Your task to perform on an android device: Search for "macbook pro 13 inch" on bestbuy, select the first entry, add it to the cart, then select checkout. Image 0: 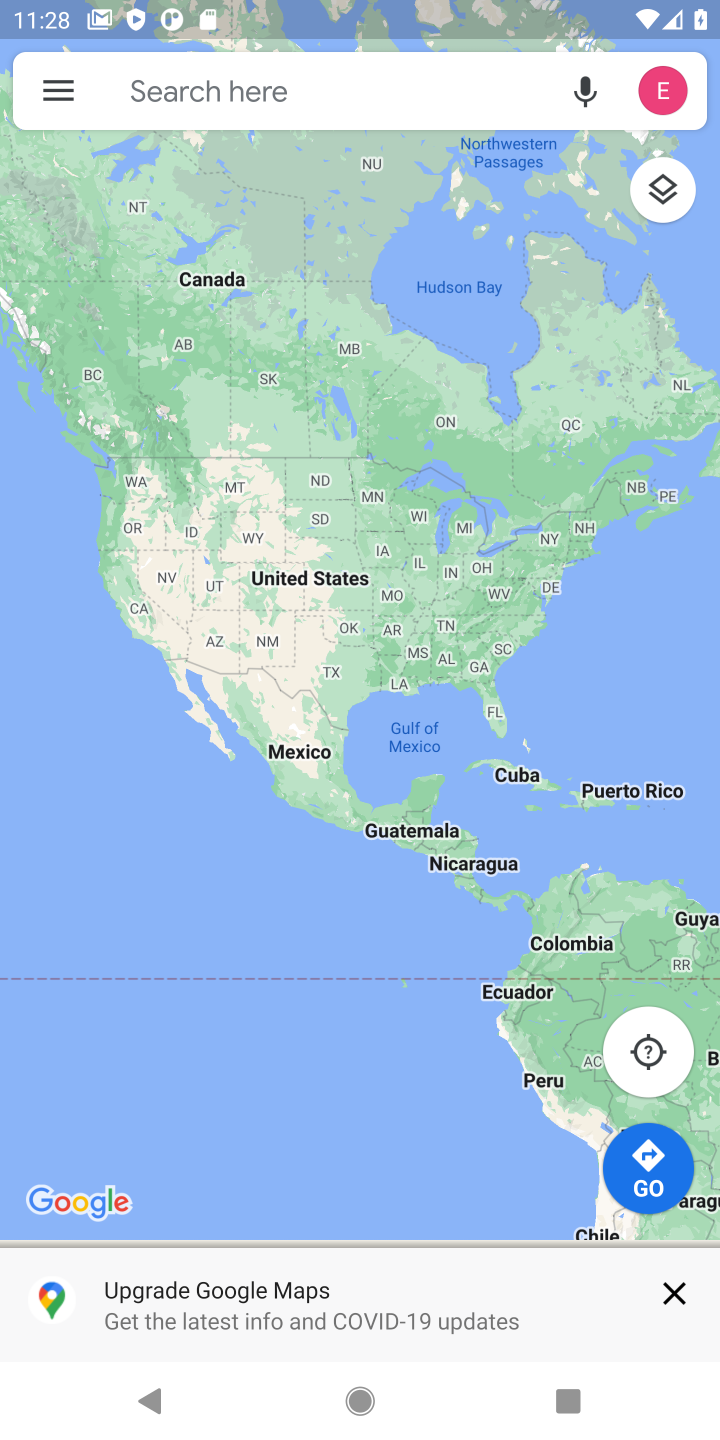
Step 0: press home button
Your task to perform on an android device: Search for "macbook pro 13 inch" on bestbuy, select the first entry, add it to the cart, then select checkout. Image 1: 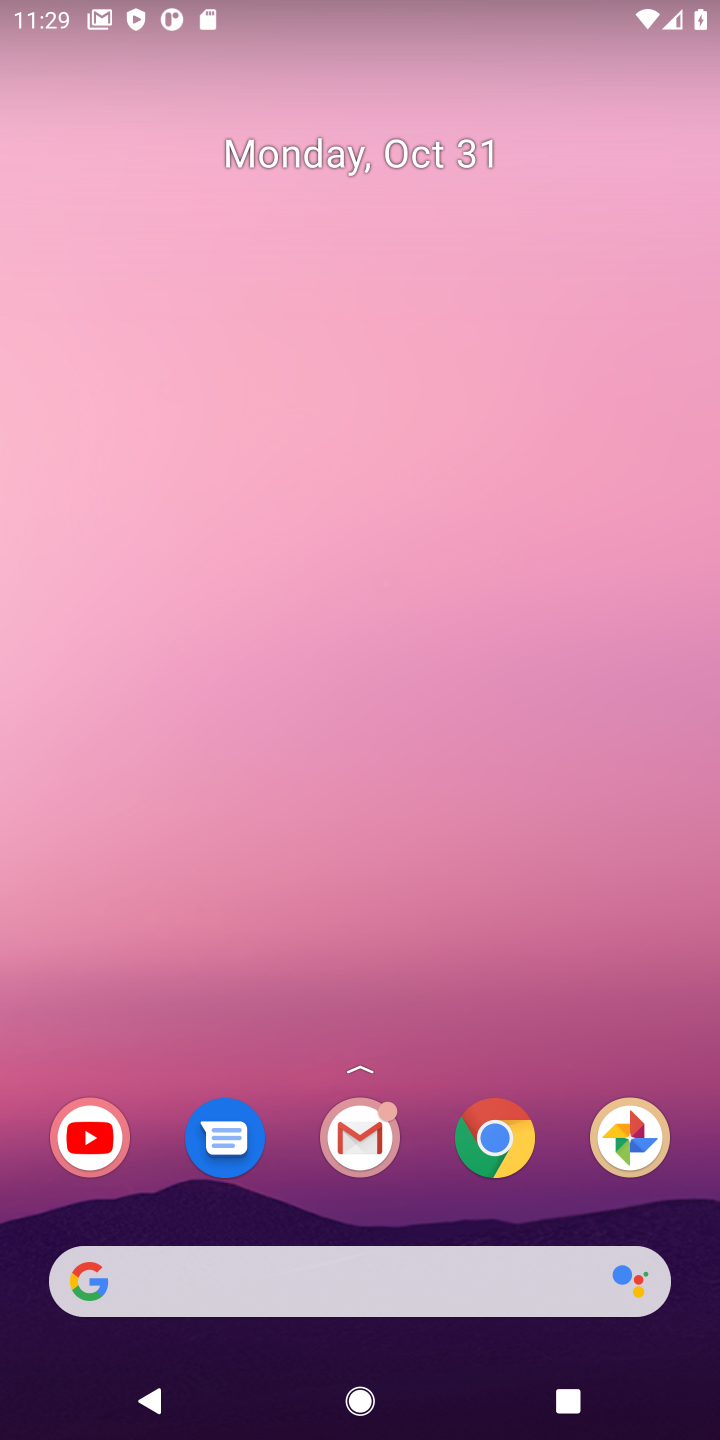
Step 1: click (494, 1164)
Your task to perform on an android device: Search for "macbook pro 13 inch" on bestbuy, select the first entry, add it to the cart, then select checkout. Image 2: 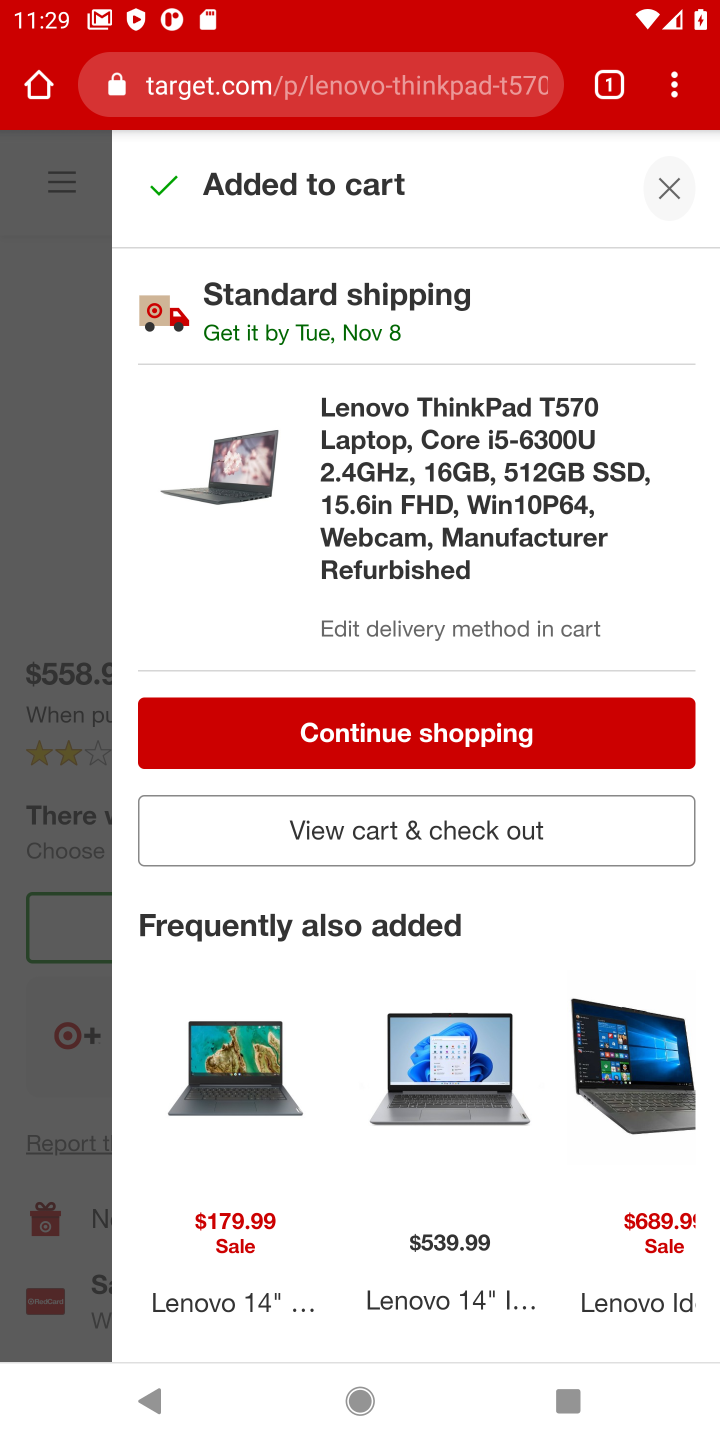
Step 2: click (498, 1144)
Your task to perform on an android device: Search for "macbook pro 13 inch" on bestbuy, select the first entry, add it to the cart, then select checkout. Image 3: 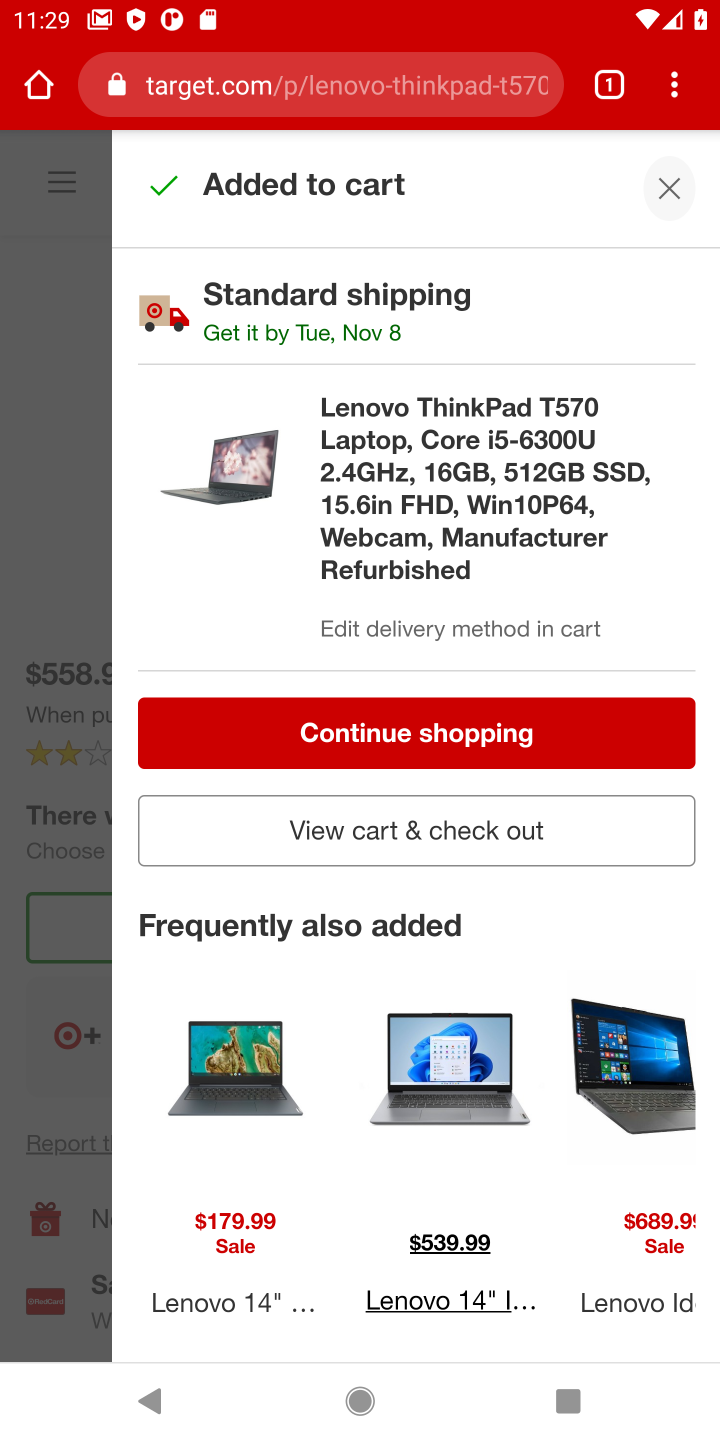
Step 3: click (498, 1144)
Your task to perform on an android device: Search for "macbook pro 13 inch" on bestbuy, select the first entry, add it to the cart, then select checkout. Image 4: 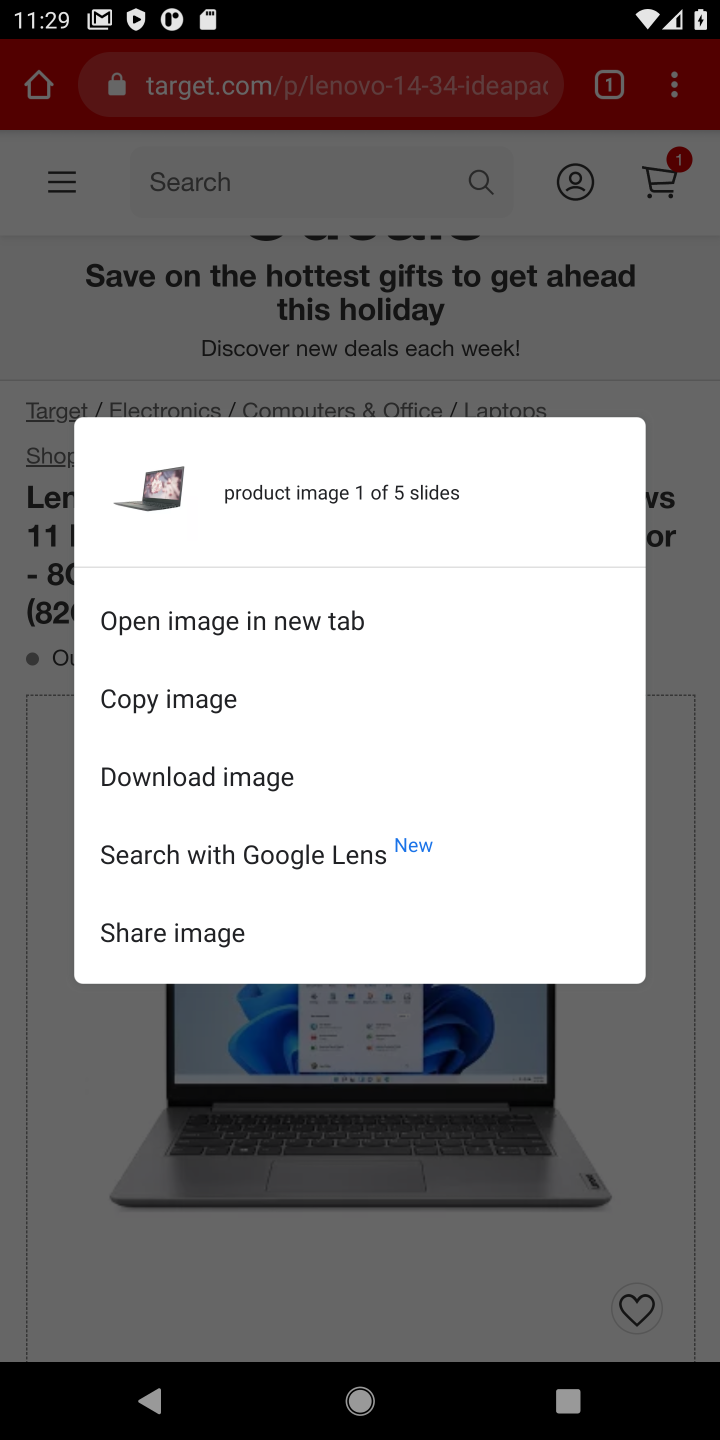
Step 4: click (437, 94)
Your task to perform on an android device: Search for "macbook pro 13 inch" on bestbuy, select the first entry, add it to the cart, then select checkout. Image 5: 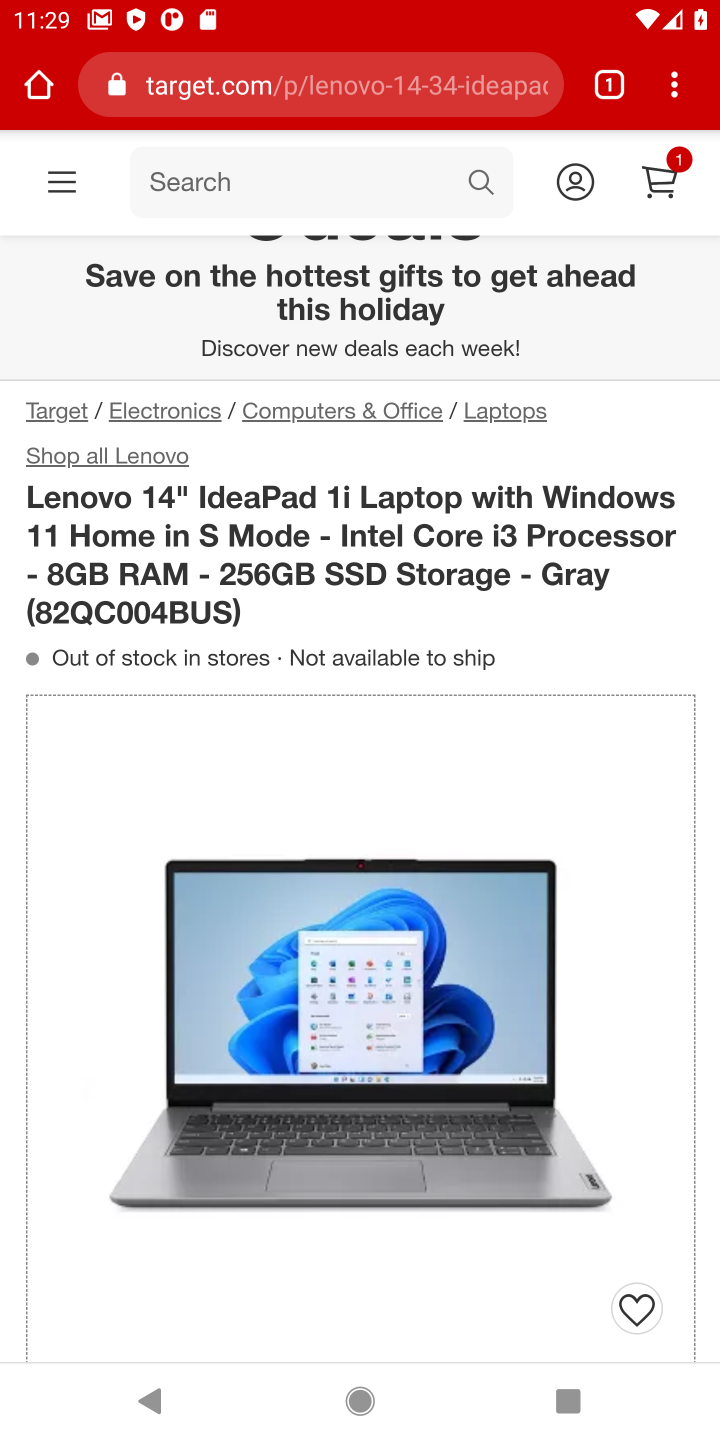
Step 5: press back button
Your task to perform on an android device: Search for "macbook pro 13 inch" on bestbuy, select the first entry, add it to the cart, then select checkout. Image 6: 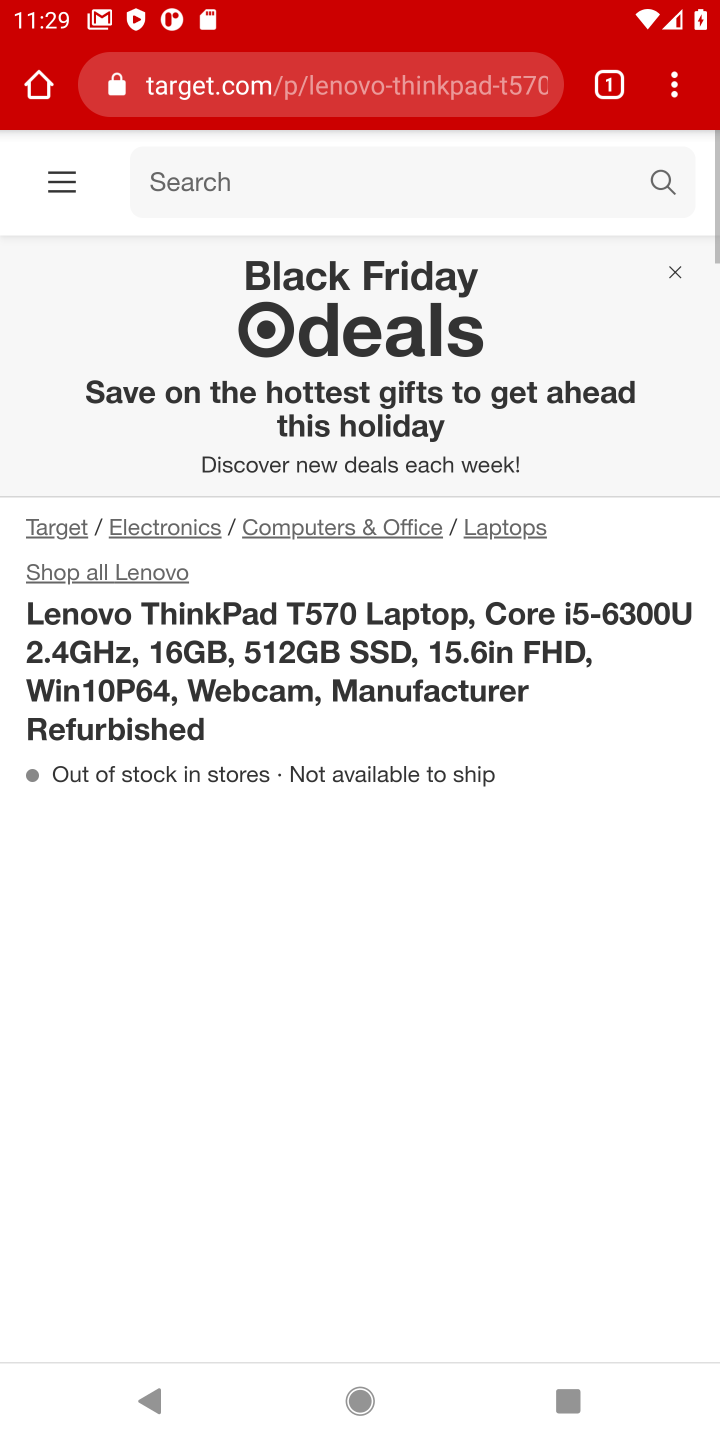
Step 6: click (249, 85)
Your task to perform on an android device: Search for "macbook pro 13 inch" on bestbuy, select the first entry, add it to the cart, then select checkout. Image 7: 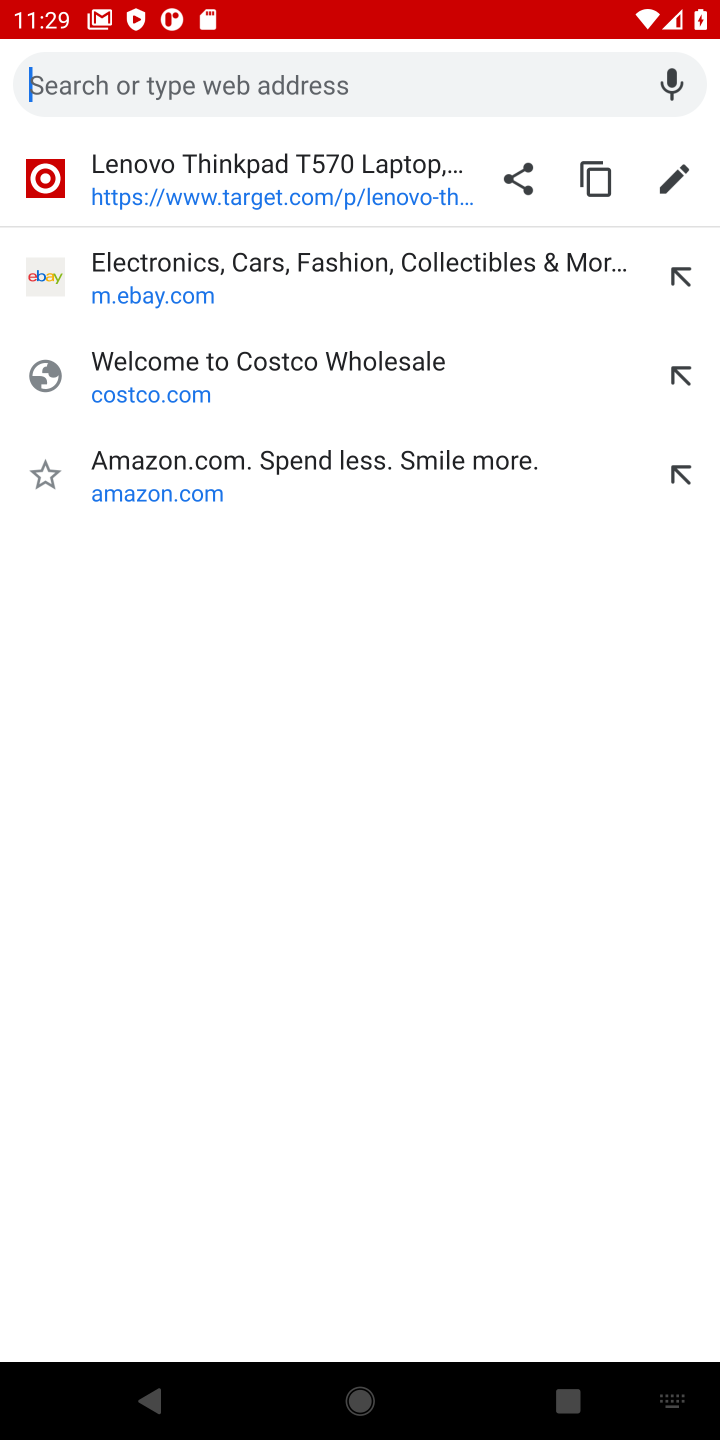
Step 7: type "bestbuy"
Your task to perform on an android device: Search for "macbook pro 13 inch" on bestbuy, select the first entry, add it to the cart, then select checkout. Image 8: 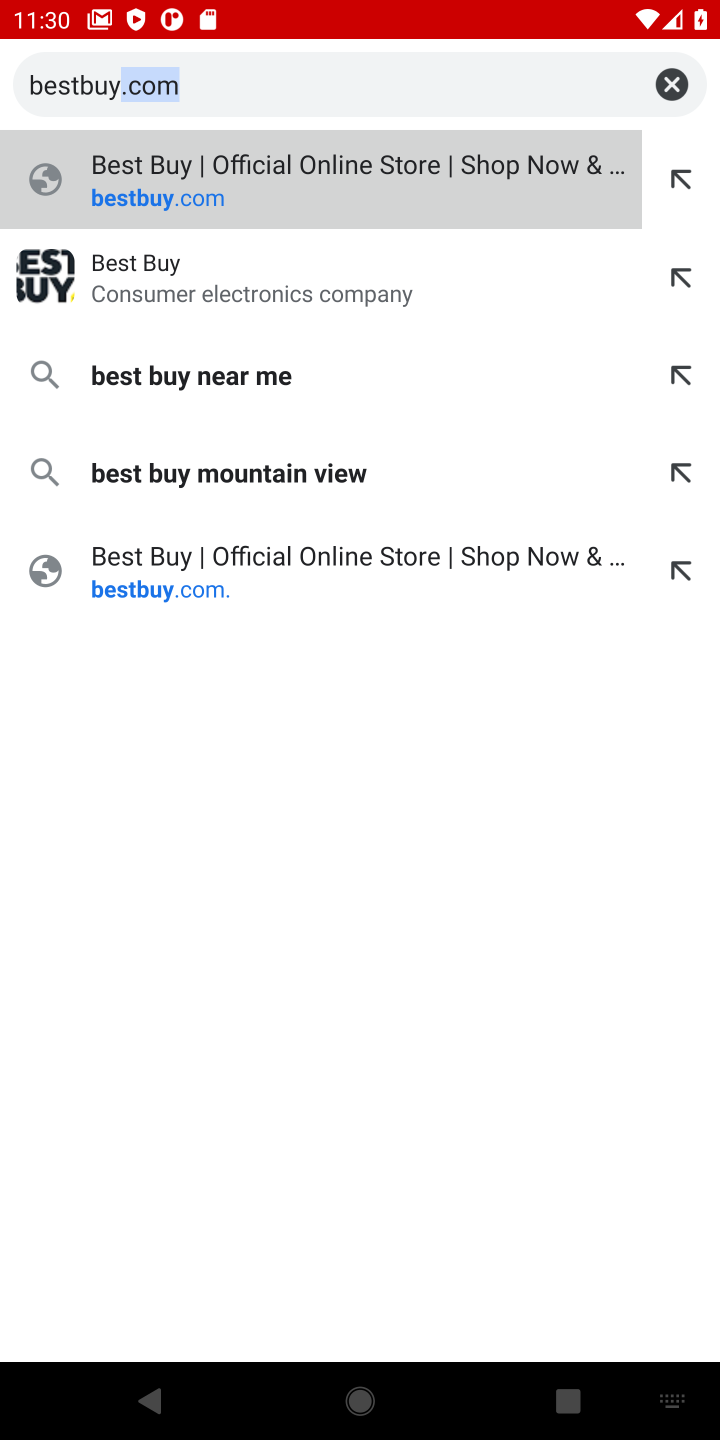
Step 8: click (181, 209)
Your task to perform on an android device: Search for "macbook pro 13 inch" on bestbuy, select the first entry, add it to the cart, then select checkout. Image 9: 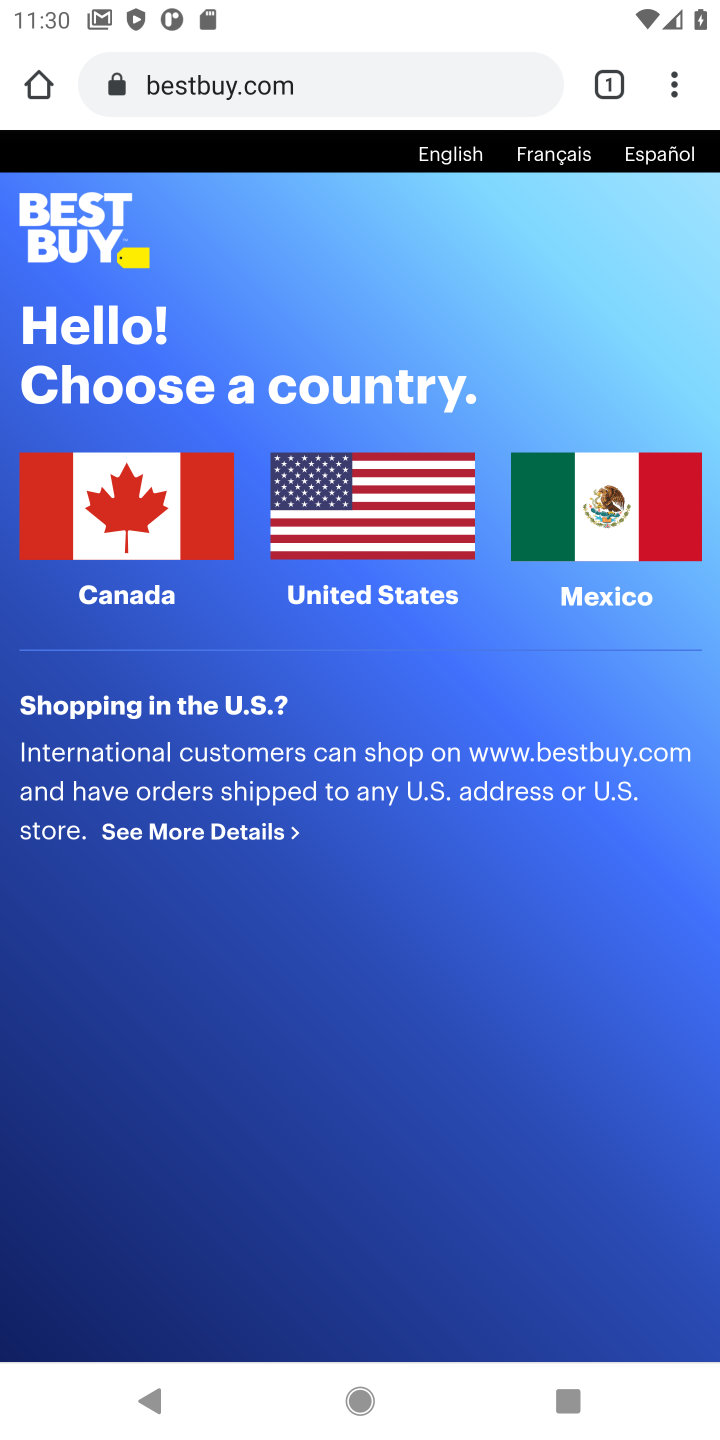
Step 9: click (336, 523)
Your task to perform on an android device: Search for "macbook pro 13 inch" on bestbuy, select the first entry, add it to the cart, then select checkout. Image 10: 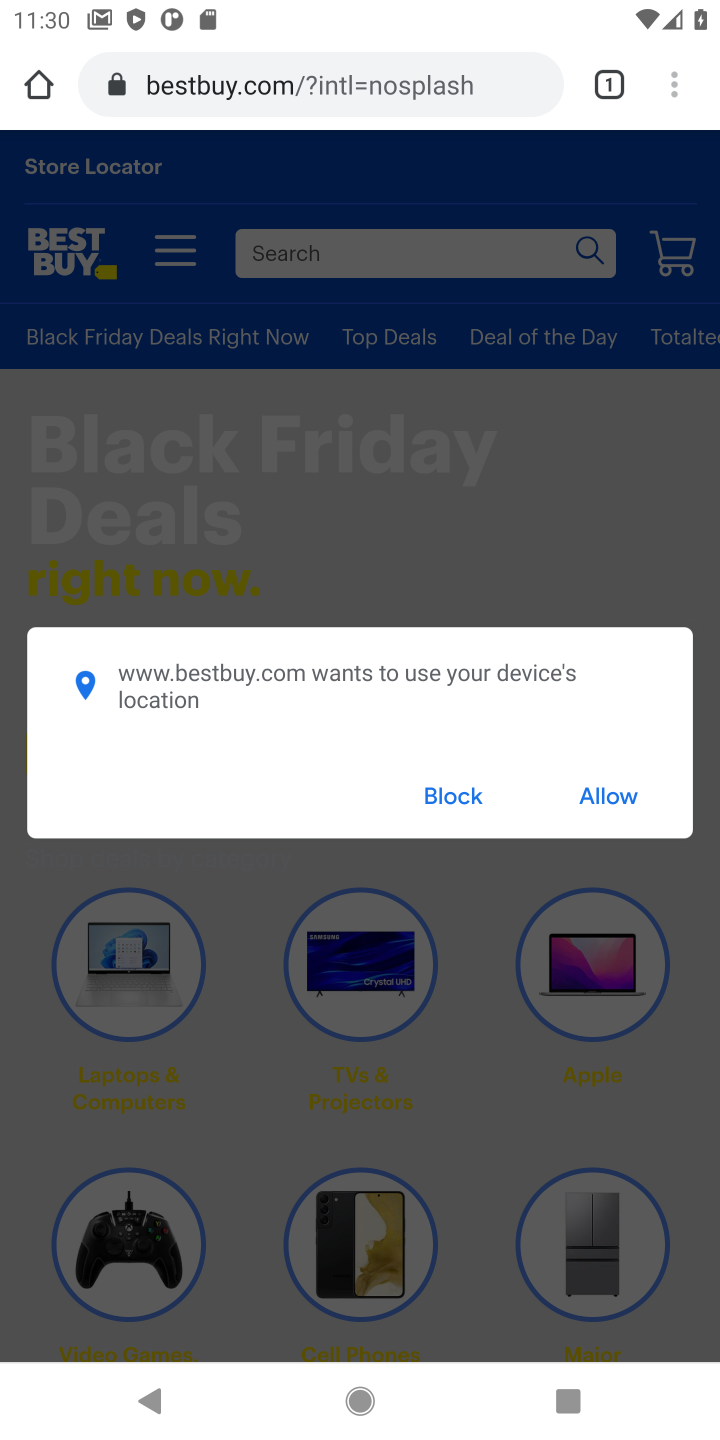
Step 10: click (587, 786)
Your task to perform on an android device: Search for "macbook pro 13 inch" on bestbuy, select the first entry, add it to the cart, then select checkout. Image 11: 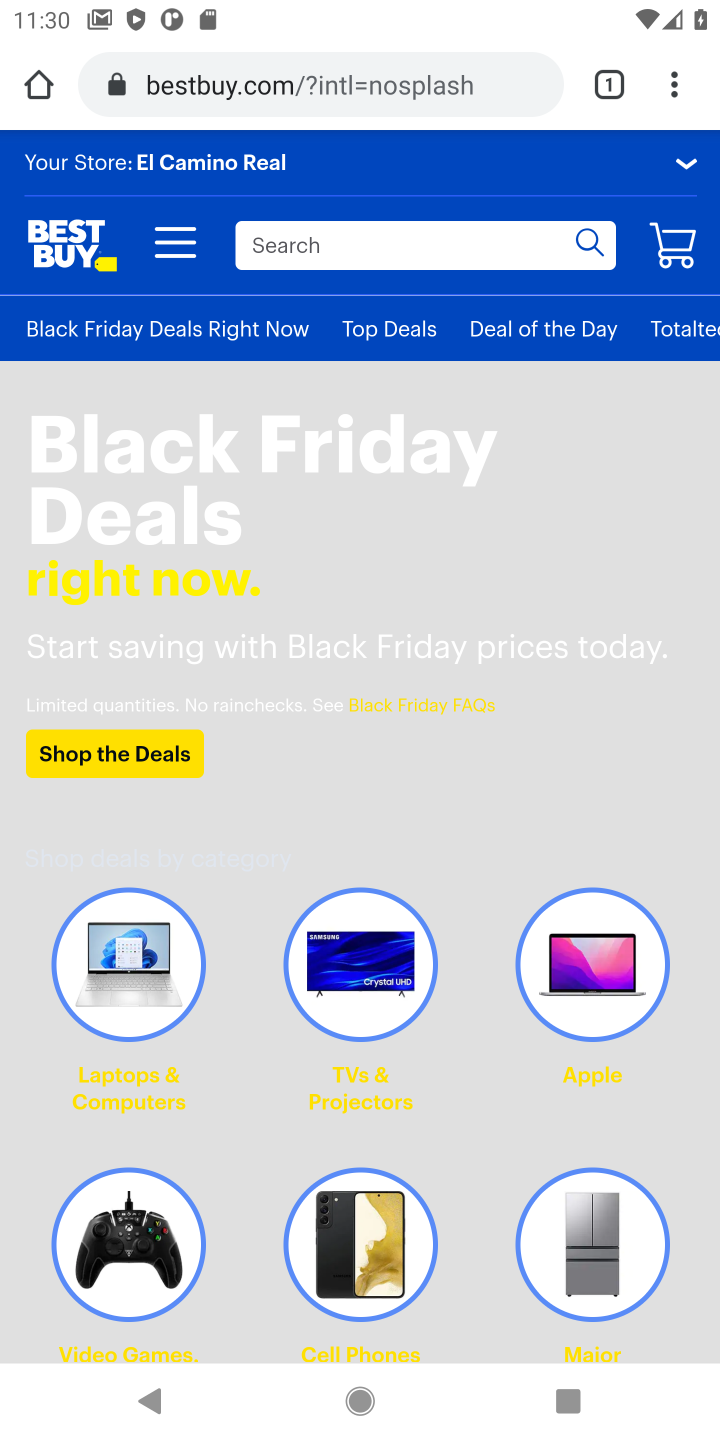
Step 11: click (618, 804)
Your task to perform on an android device: Search for "macbook pro 13 inch" on bestbuy, select the first entry, add it to the cart, then select checkout. Image 12: 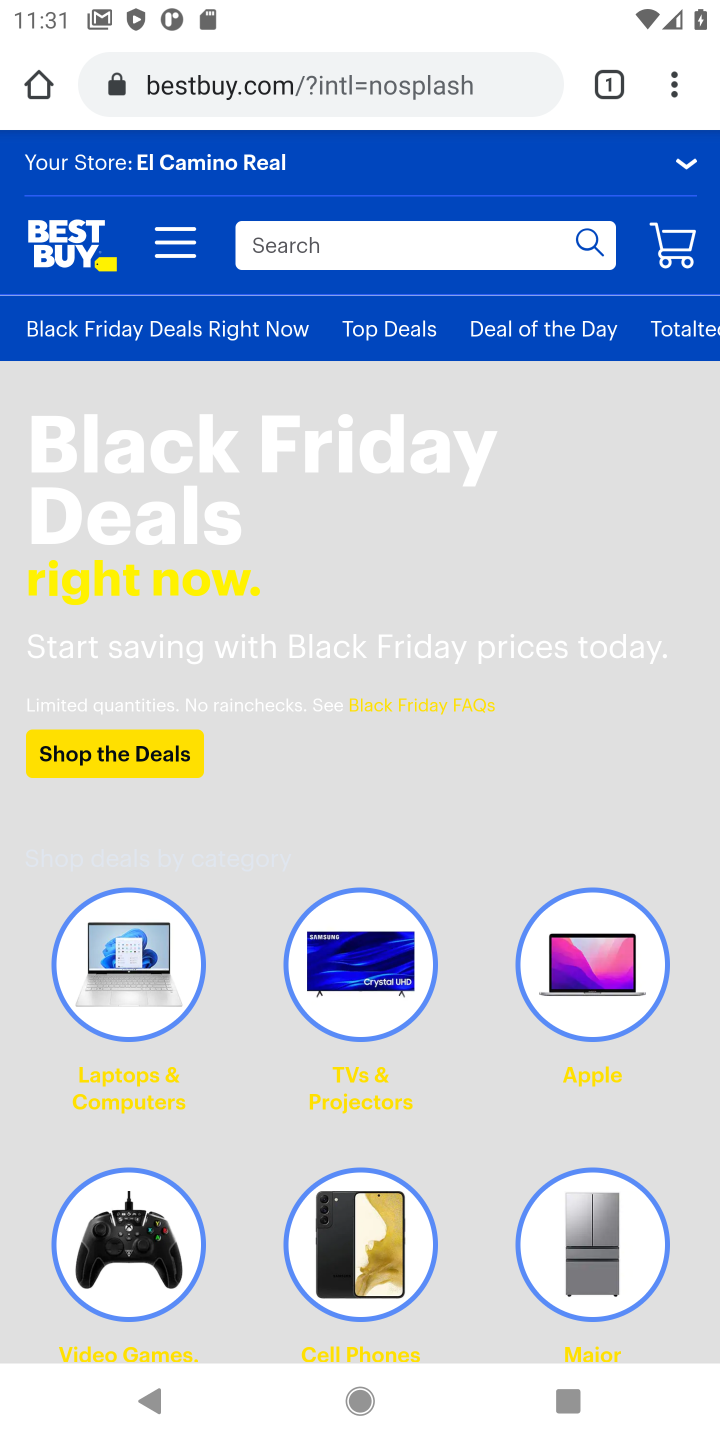
Step 12: click (450, 261)
Your task to perform on an android device: Search for "macbook pro 13 inch" on bestbuy, select the first entry, add it to the cart, then select checkout. Image 13: 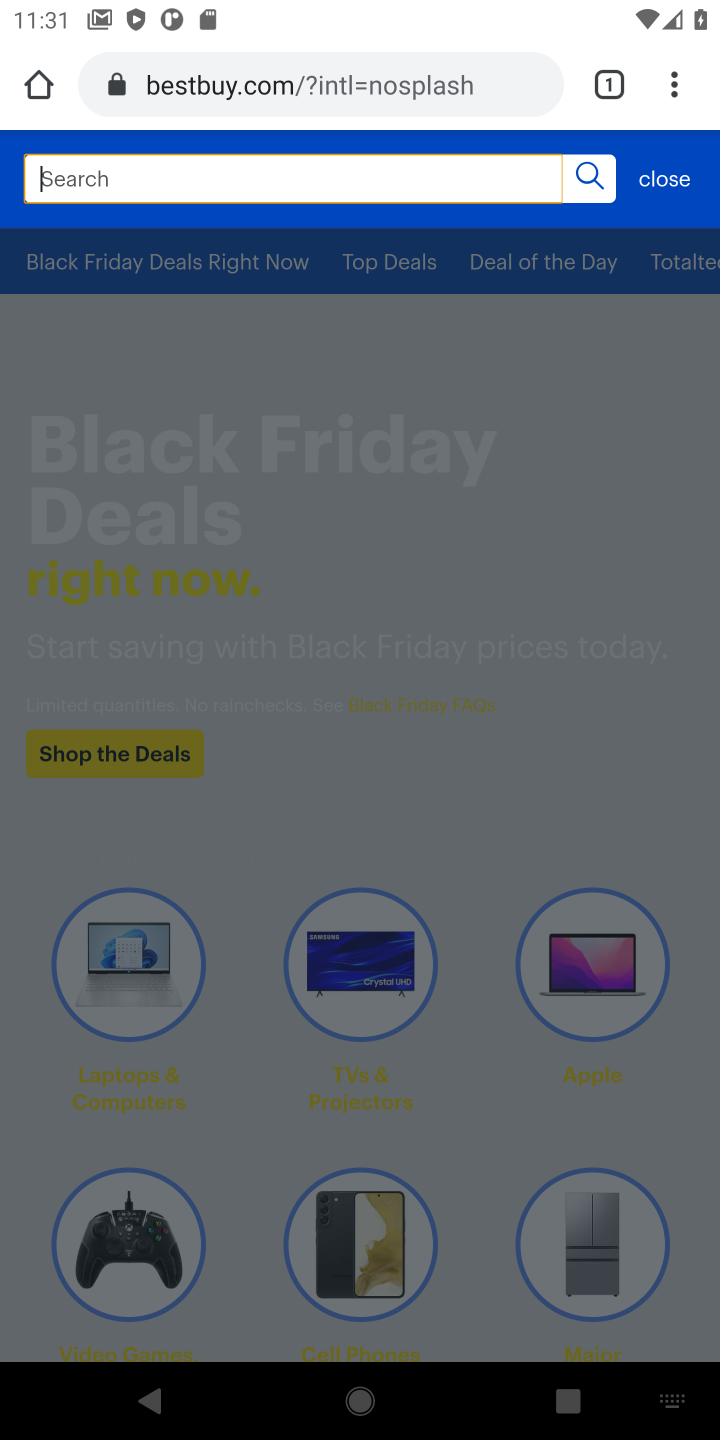
Step 13: type "macbook pro 13 inch"
Your task to perform on an android device: Search for "macbook pro 13 inch" on bestbuy, select the first entry, add it to the cart, then select checkout. Image 14: 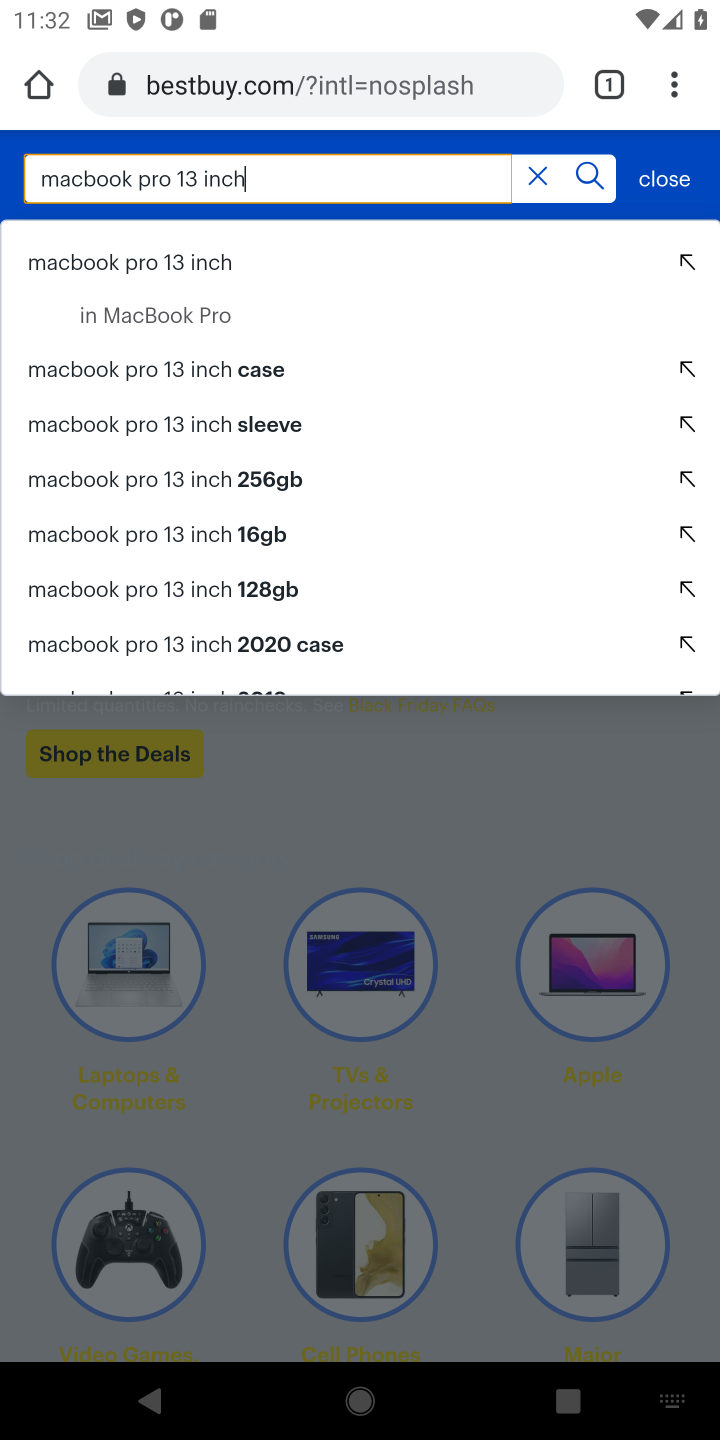
Step 14: click (599, 179)
Your task to perform on an android device: Search for "macbook pro 13 inch" on bestbuy, select the first entry, add it to the cart, then select checkout. Image 15: 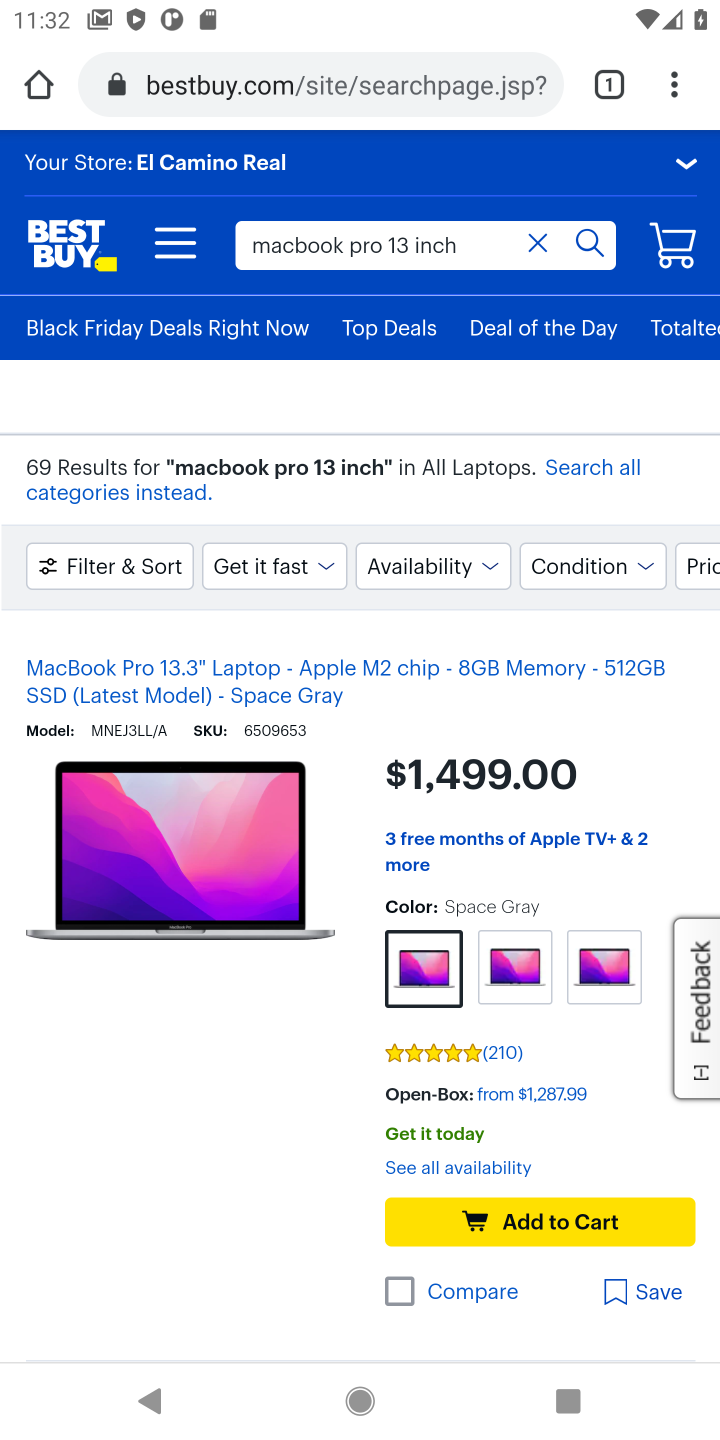
Step 15: click (555, 1233)
Your task to perform on an android device: Search for "macbook pro 13 inch" on bestbuy, select the first entry, add it to the cart, then select checkout. Image 16: 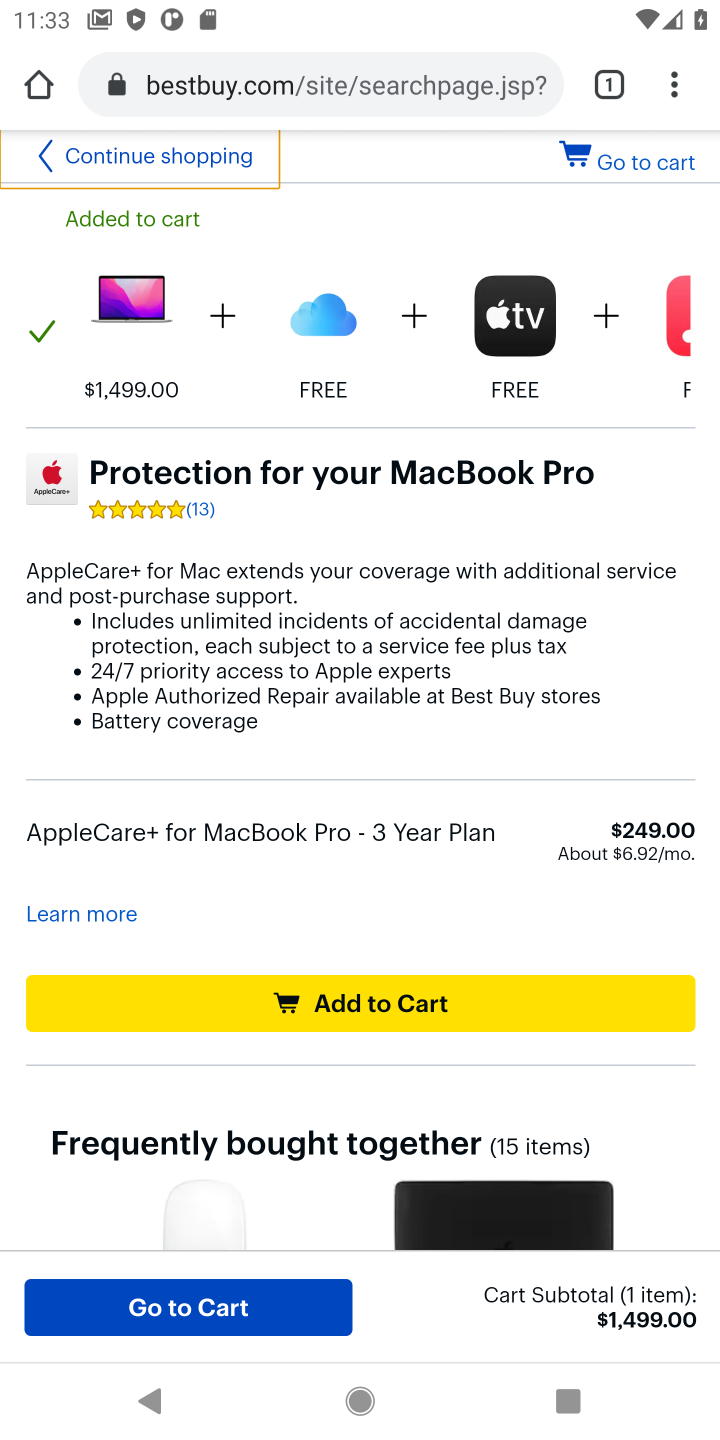
Step 16: click (633, 158)
Your task to perform on an android device: Search for "macbook pro 13 inch" on bestbuy, select the first entry, add it to the cart, then select checkout. Image 17: 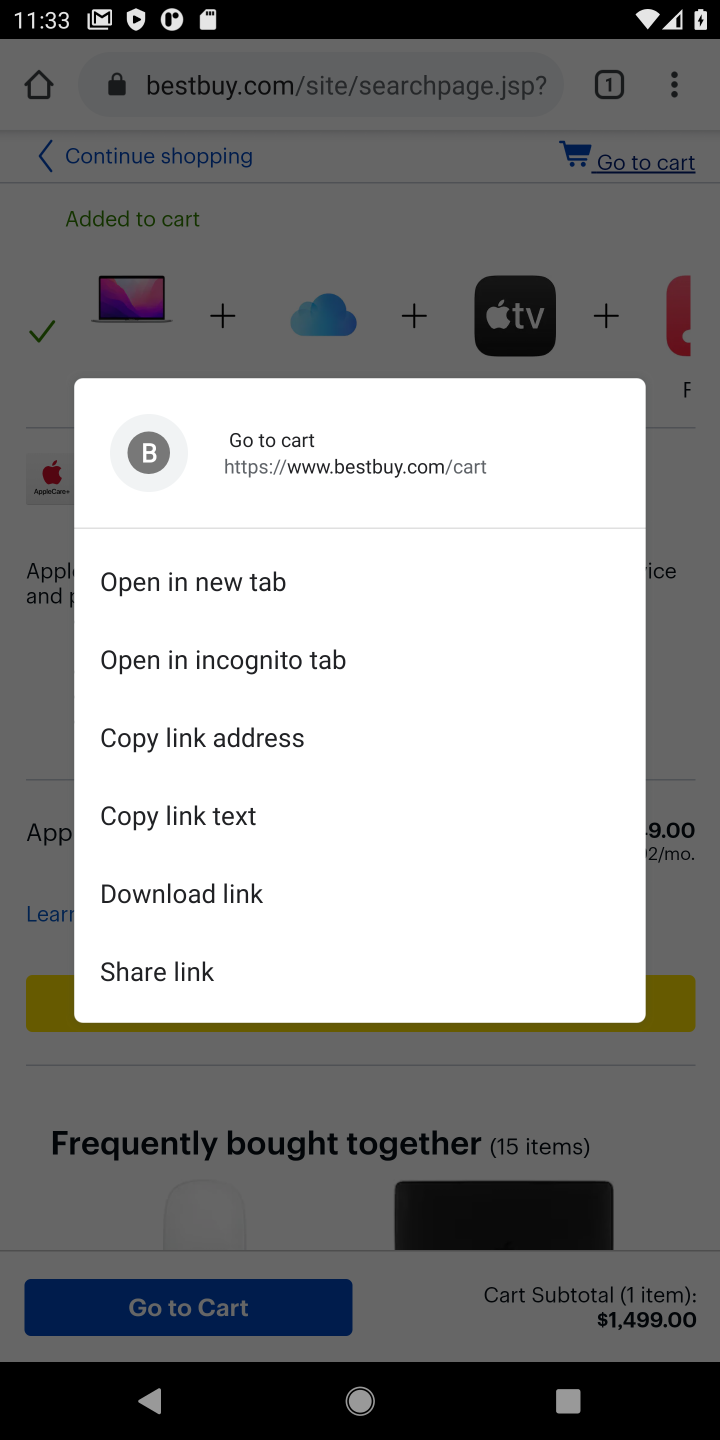
Step 17: press back button
Your task to perform on an android device: Search for "macbook pro 13 inch" on bestbuy, select the first entry, add it to the cart, then select checkout. Image 18: 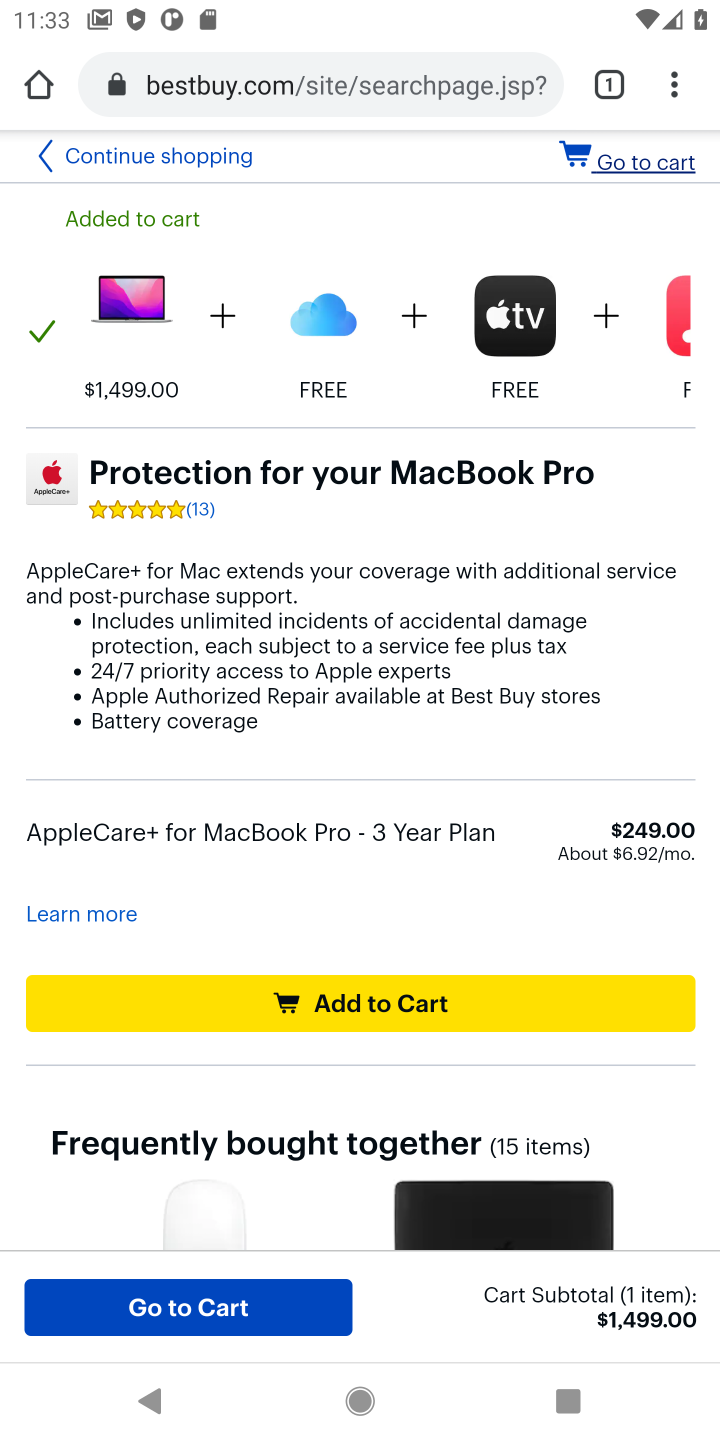
Step 18: click (632, 159)
Your task to perform on an android device: Search for "macbook pro 13 inch" on bestbuy, select the first entry, add it to the cart, then select checkout. Image 19: 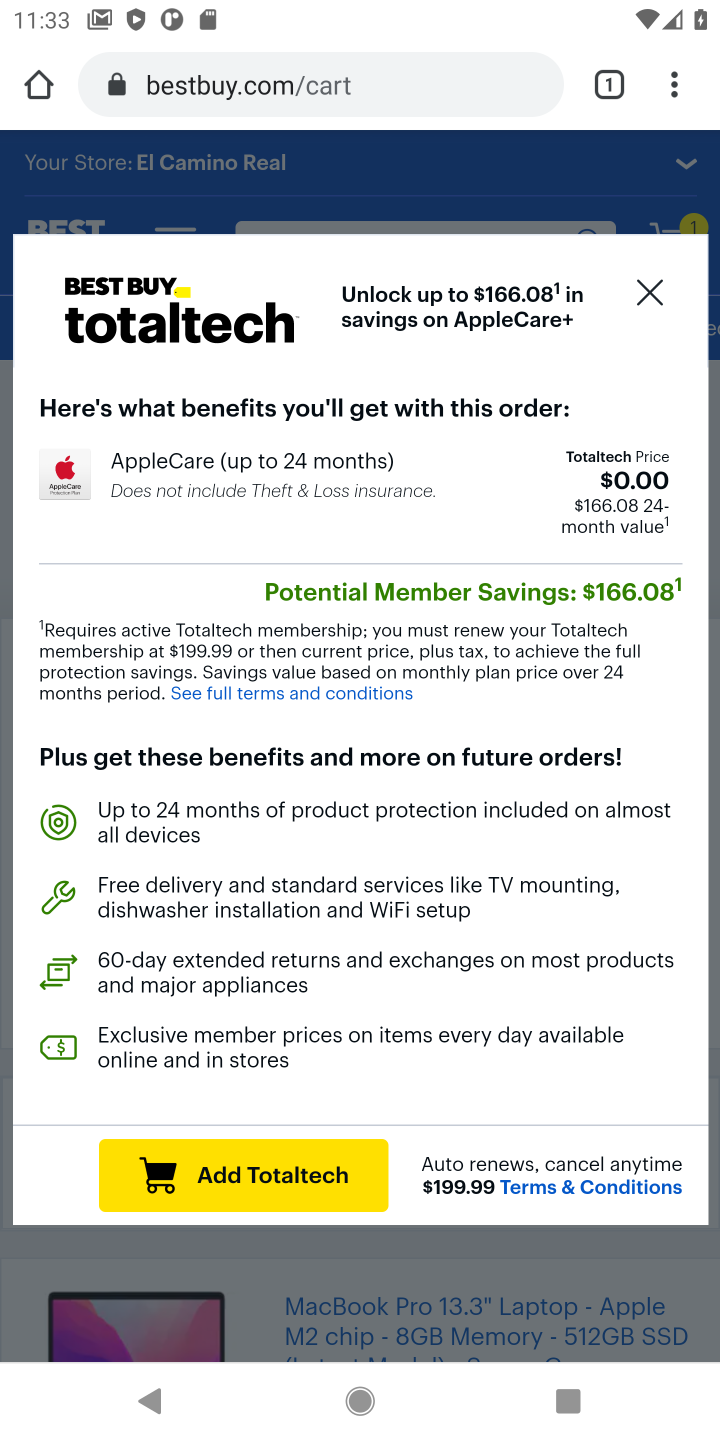
Step 19: click (642, 286)
Your task to perform on an android device: Search for "macbook pro 13 inch" on bestbuy, select the first entry, add it to the cart, then select checkout. Image 20: 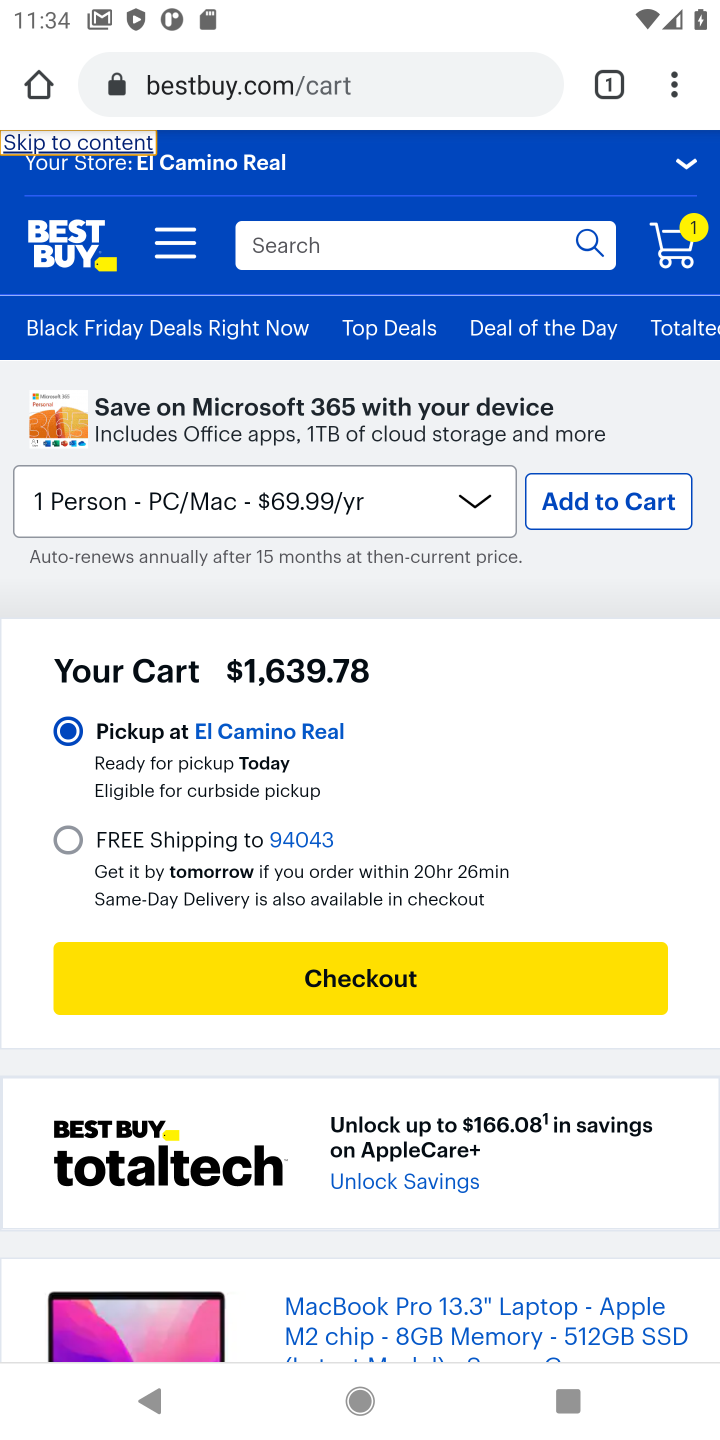
Step 20: click (329, 980)
Your task to perform on an android device: Search for "macbook pro 13 inch" on bestbuy, select the first entry, add it to the cart, then select checkout. Image 21: 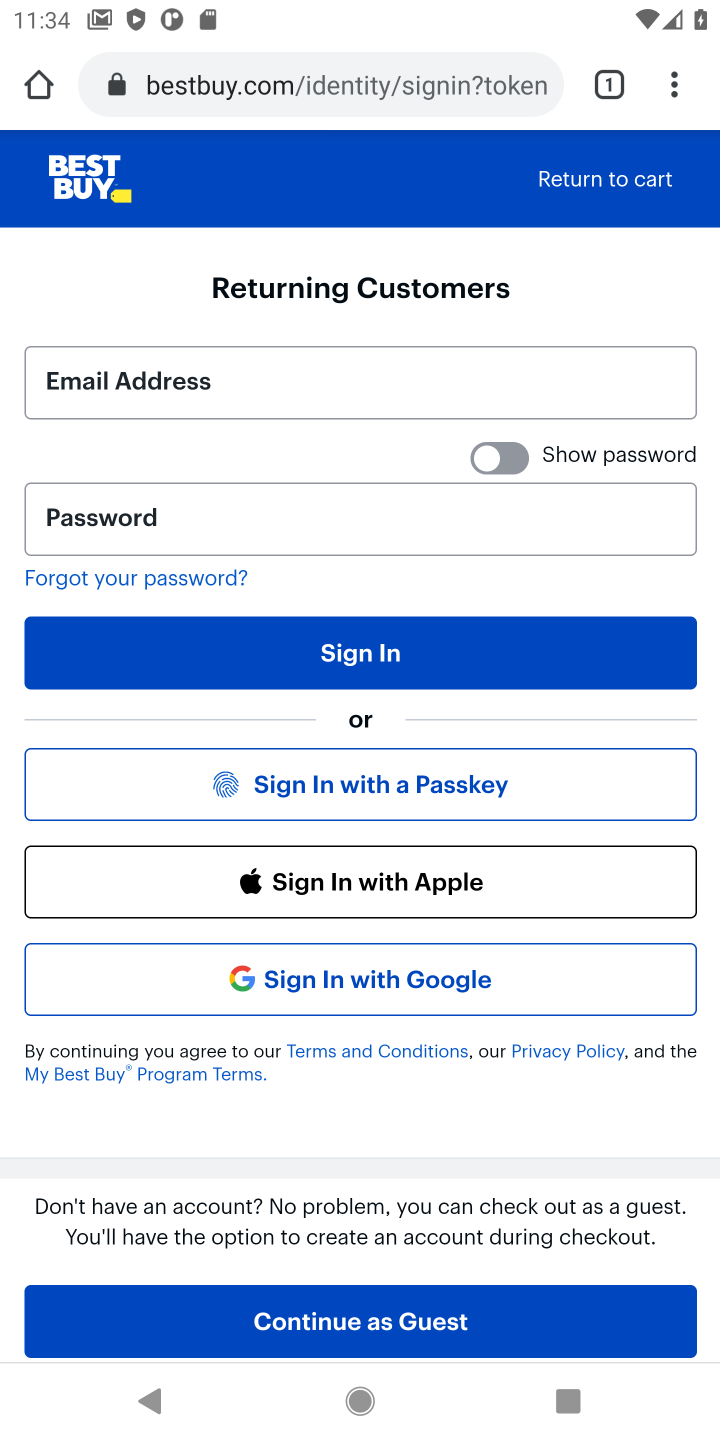
Step 21: task complete